Your task to perform on an android device: toggle pop-ups in chrome Image 0: 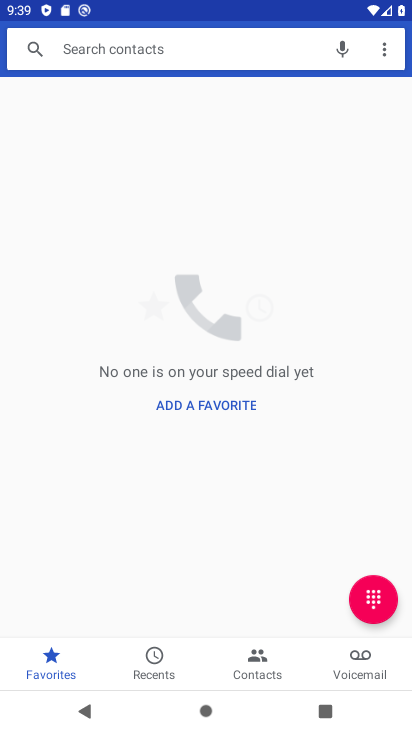
Step 0: press home button
Your task to perform on an android device: toggle pop-ups in chrome Image 1: 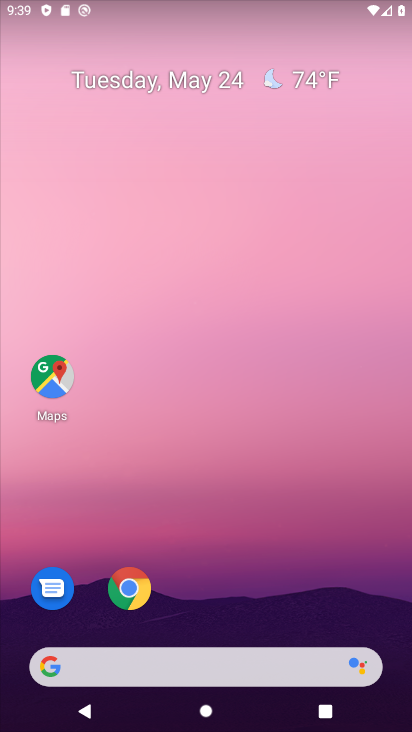
Step 1: click (129, 601)
Your task to perform on an android device: toggle pop-ups in chrome Image 2: 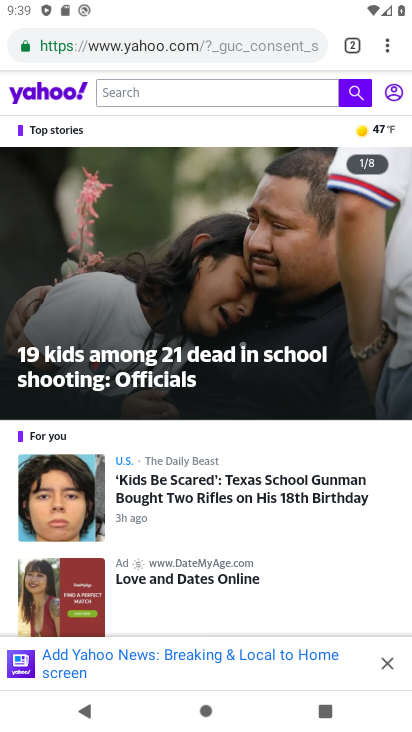
Step 2: click (398, 42)
Your task to perform on an android device: toggle pop-ups in chrome Image 3: 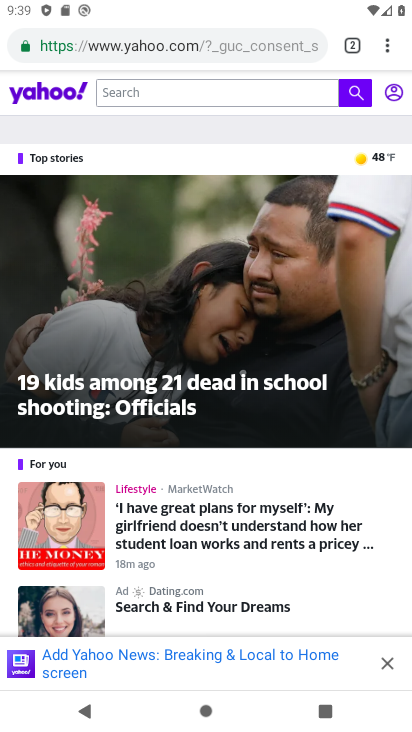
Step 3: click (397, 44)
Your task to perform on an android device: toggle pop-ups in chrome Image 4: 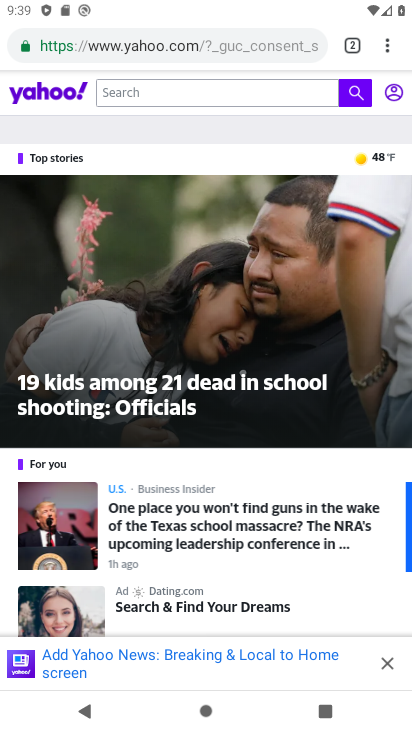
Step 4: click (383, 37)
Your task to perform on an android device: toggle pop-ups in chrome Image 5: 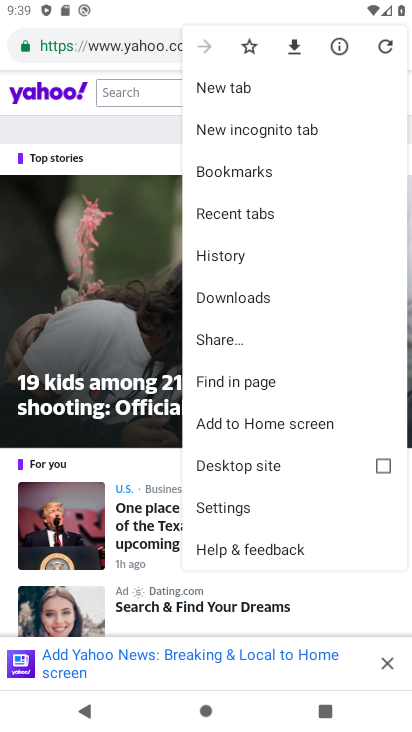
Step 5: click (217, 508)
Your task to perform on an android device: toggle pop-ups in chrome Image 6: 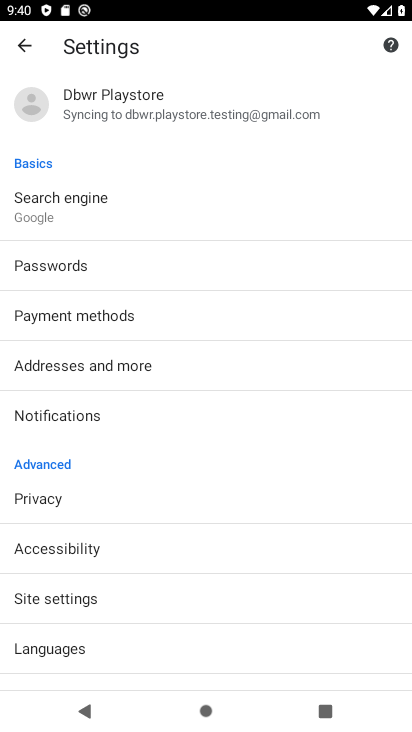
Step 6: click (71, 611)
Your task to perform on an android device: toggle pop-ups in chrome Image 7: 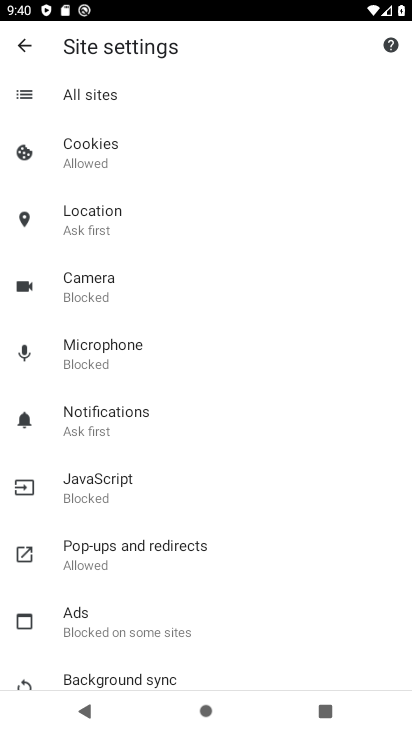
Step 7: click (82, 562)
Your task to perform on an android device: toggle pop-ups in chrome Image 8: 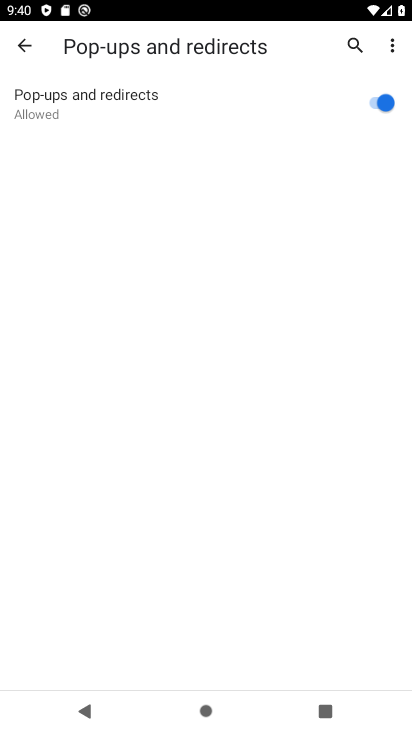
Step 8: click (381, 107)
Your task to perform on an android device: toggle pop-ups in chrome Image 9: 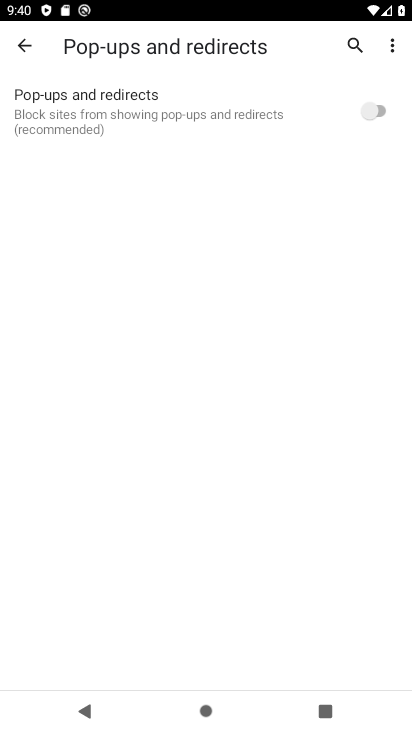
Step 9: click (381, 107)
Your task to perform on an android device: toggle pop-ups in chrome Image 10: 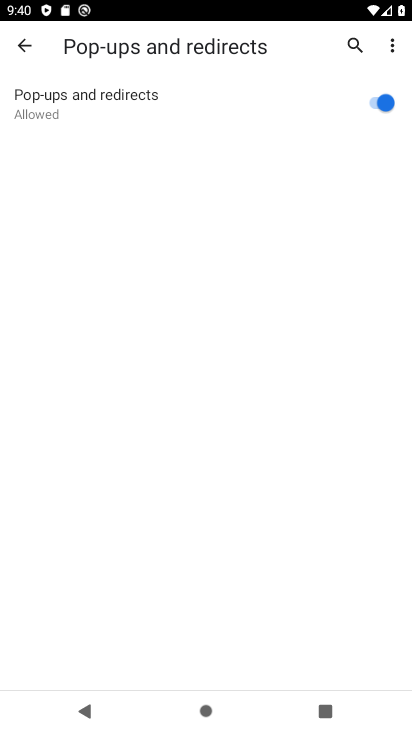
Step 10: task complete